Your task to perform on an android device: toggle notification dots Image 0: 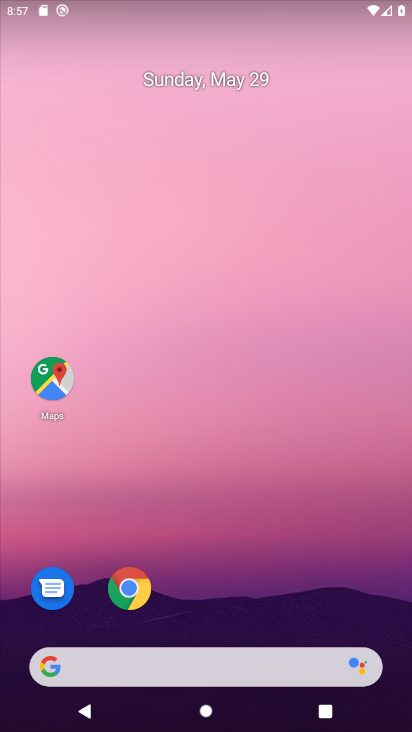
Step 0: drag from (240, 597) to (176, 103)
Your task to perform on an android device: toggle notification dots Image 1: 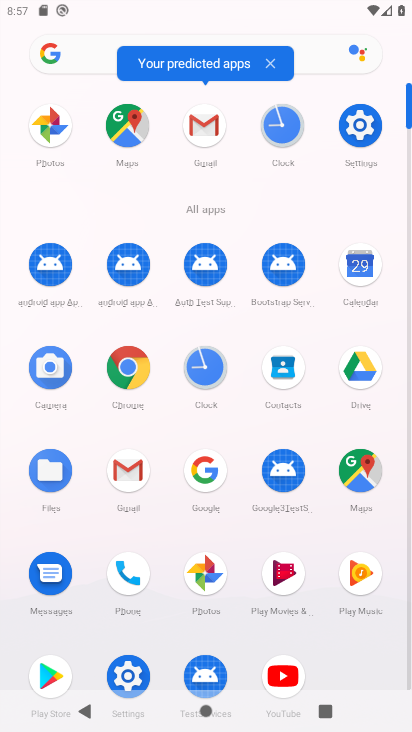
Step 1: click (348, 132)
Your task to perform on an android device: toggle notification dots Image 2: 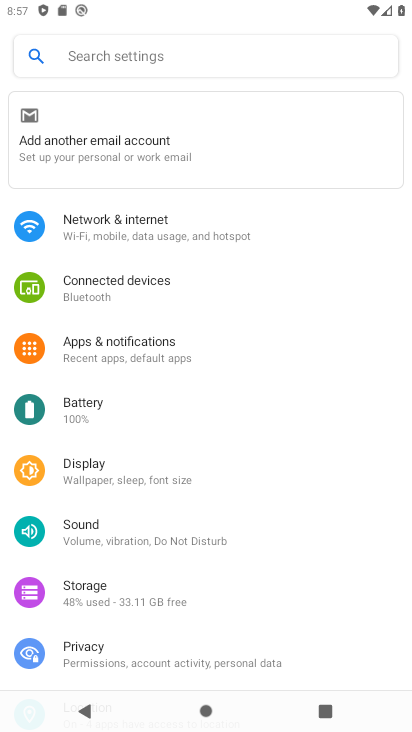
Step 2: click (115, 341)
Your task to perform on an android device: toggle notification dots Image 3: 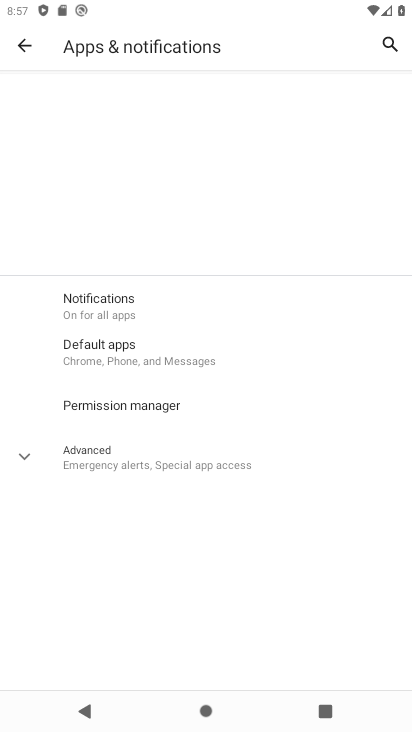
Step 3: click (129, 342)
Your task to perform on an android device: toggle notification dots Image 4: 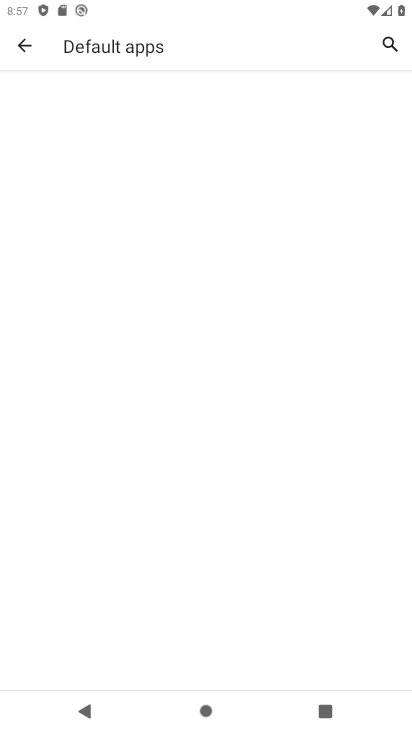
Step 4: click (19, 56)
Your task to perform on an android device: toggle notification dots Image 5: 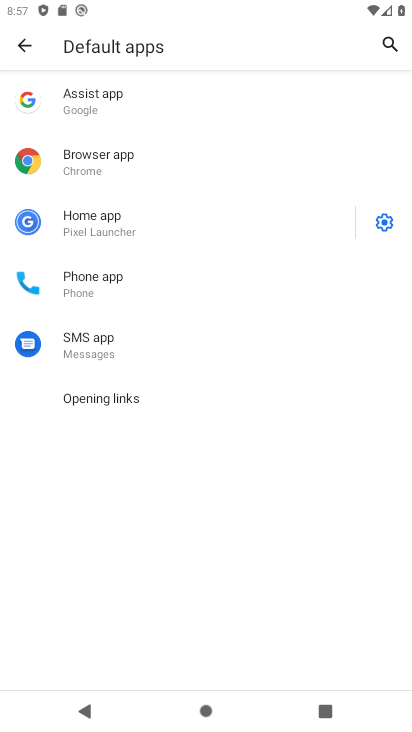
Step 5: click (30, 53)
Your task to perform on an android device: toggle notification dots Image 6: 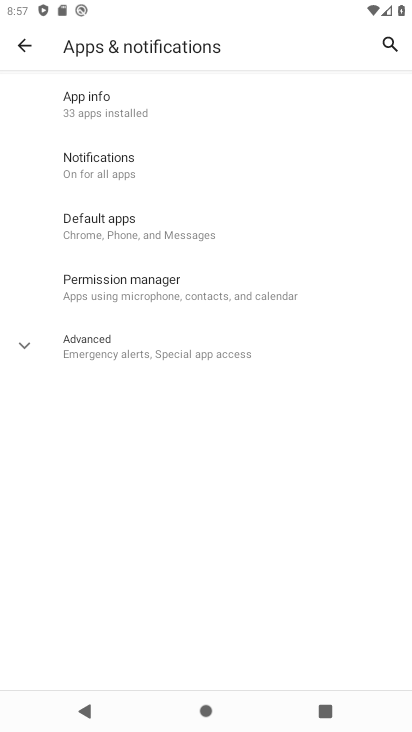
Step 6: click (102, 166)
Your task to perform on an android device: toggle notification dots Image 7: 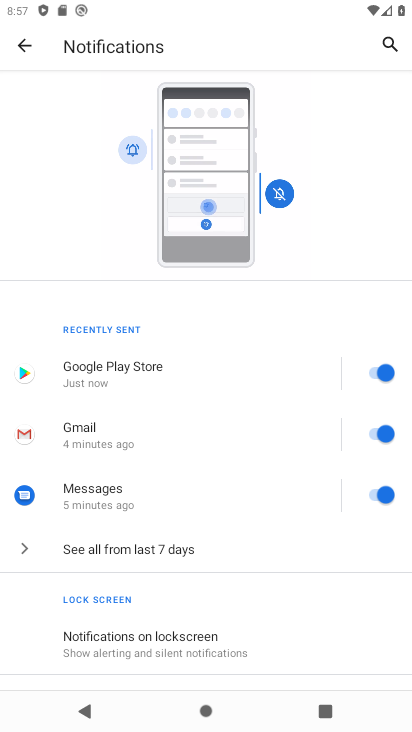
Step 7: drag from (145, 626) to (191, 151)
Your task to perform on an android device: toggle notification dots Image 8: 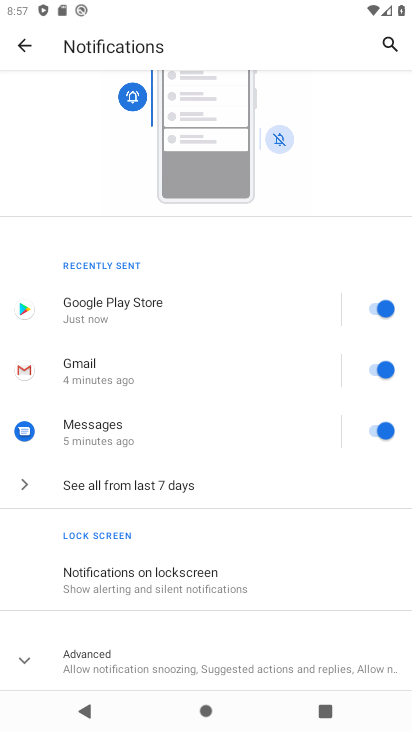
Step 8: click (135, 657)
Your task to perform on an android device: toggle notification dots Image 9: 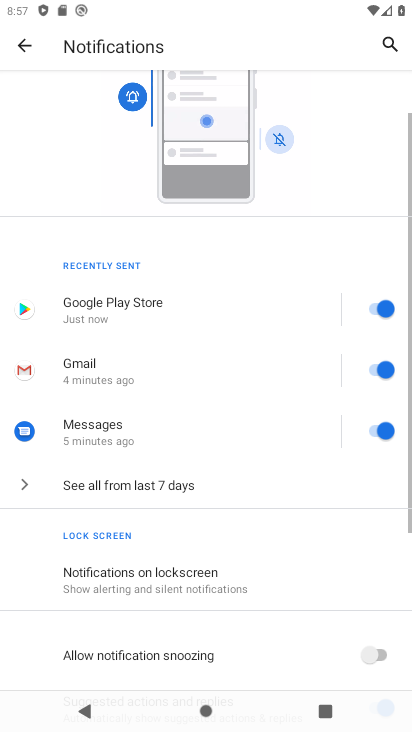
Step 9: drag from (160, 614) to (168, 101)
Your task to perform on an android device: toggle notification dots Image 10: 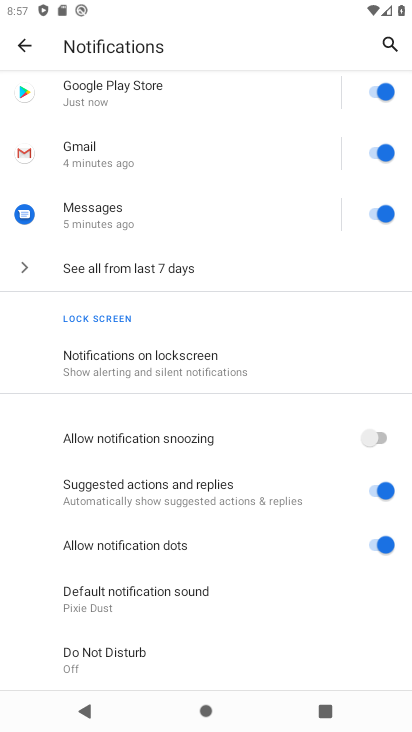
Step 10: click (386, 545)
Your task to perform on an android device: toggle notification dots Image 11: 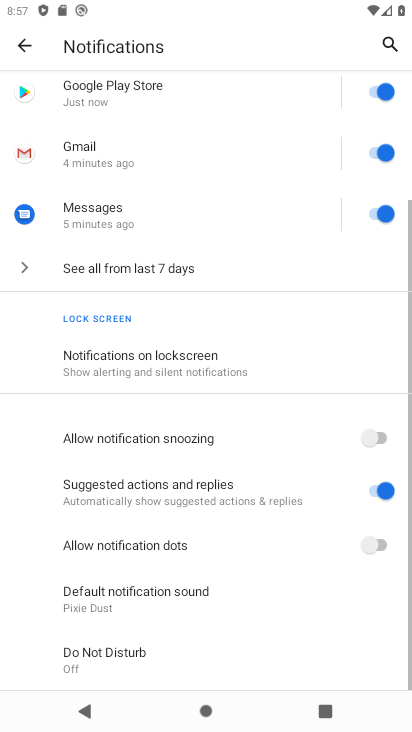
Step 11: task complete